Your task to perform on an android device: Go to CNN.com Image 0: 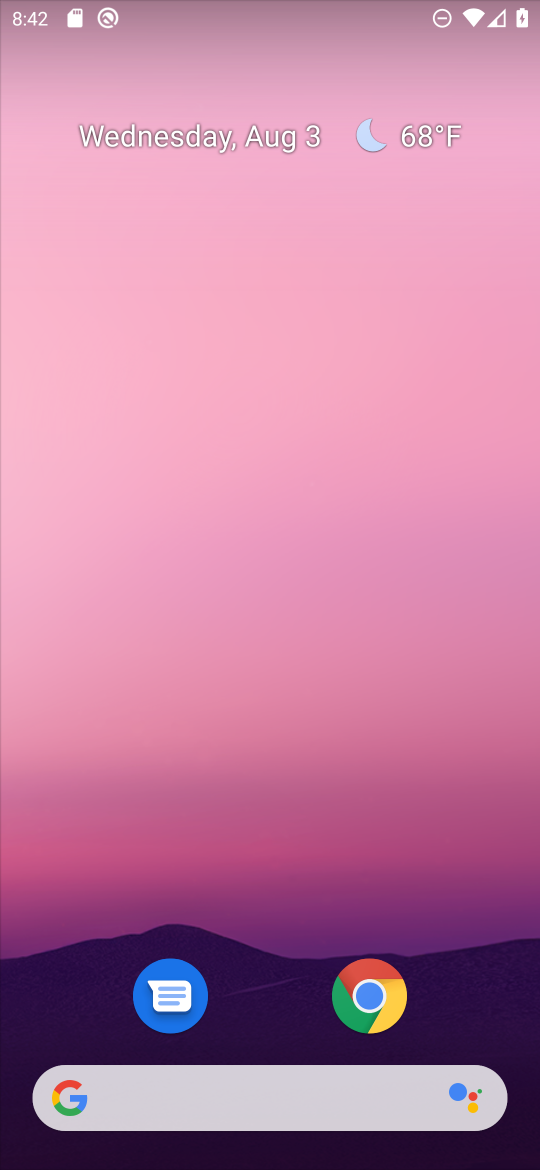
Step 0: click (274, 1097)
Your task to perform on an android device: Go to CNN.com Image 1: 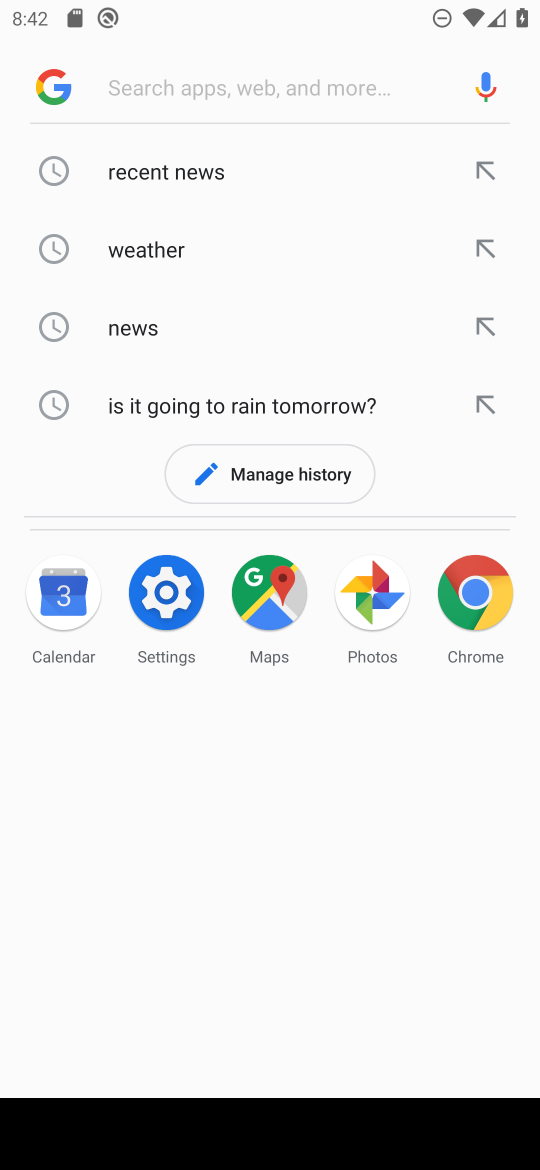
Step 1: type "cnn.com"
Your task to perform on an android device: Go to CNN.com Image 2: 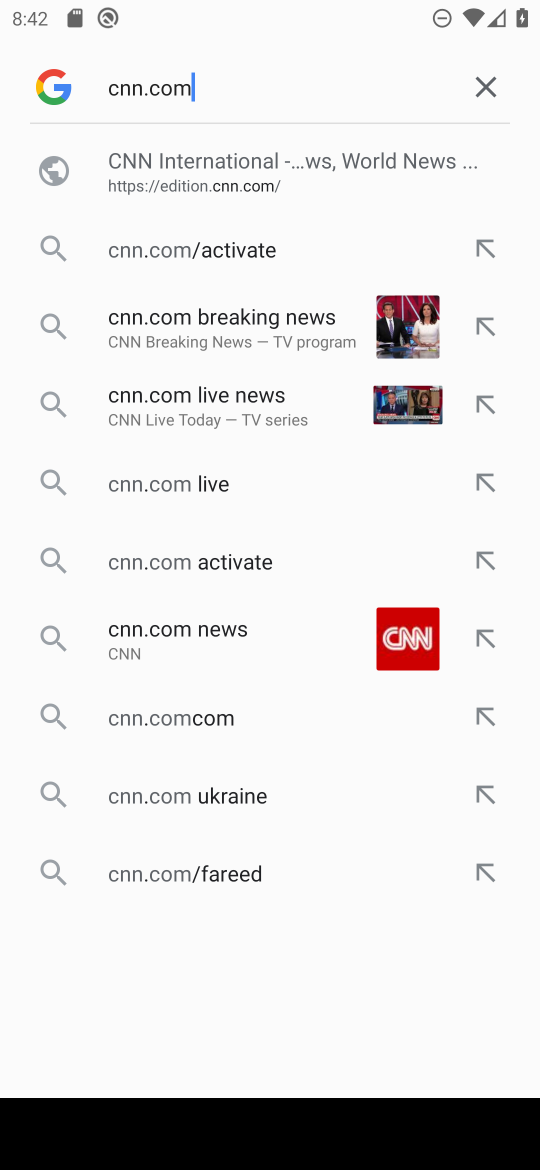
Step 2: click (262, 167)
Your task to perform on an android device: Go to CNN.com Image 3: 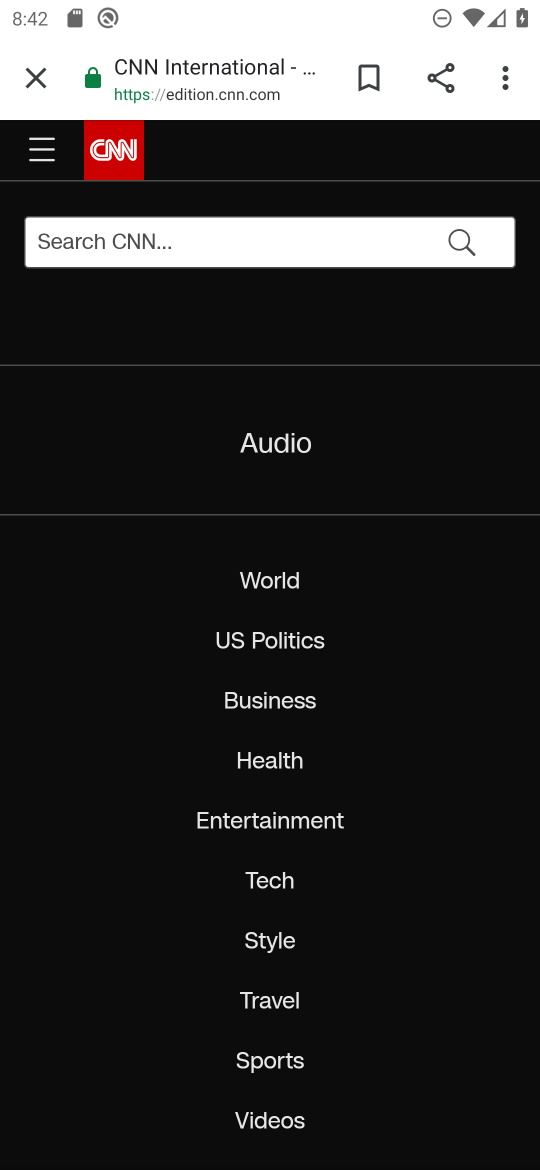
Step 3: task complete